Your task to perform on an android device: Open the phone app and click the voicemail tab. Image 0: 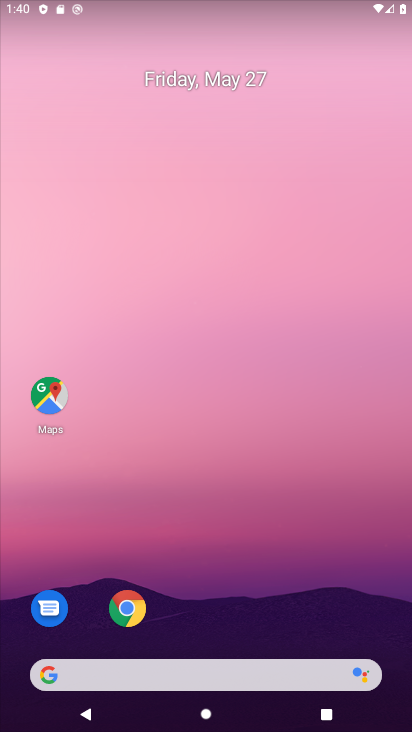
Step 0: drag from (318, 591) to (261, 91)
Your task to perform on an android device: Open the phone app and click the voicemail tab. Image 1: 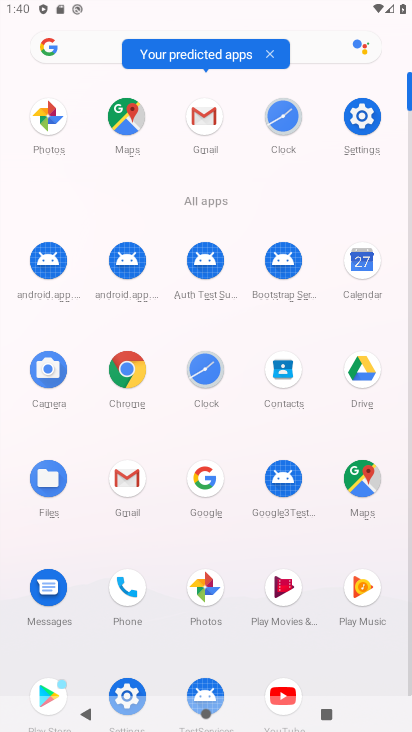
Step 1: click (133, 585)
Your task to perform on an android device: Open the phone app and click the voicemail tab. Image 2: 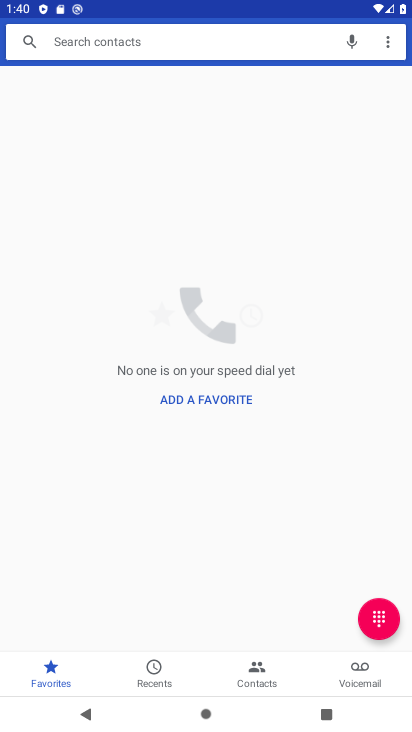
Step 2: click (364, 679)
Your task to perform on an android device: Open the phone app and click the voicemail tab. Image 3: 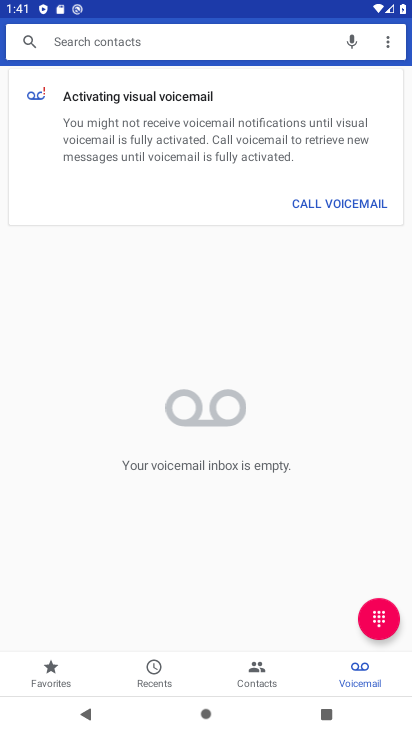
Step 3: task complete